Your task to perform on an android device: Open Google Maps Image 0: 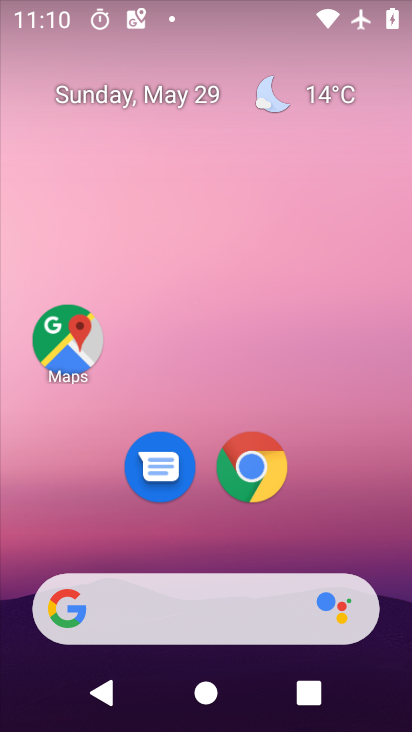
Step 0: click (66, 345)
Your task to perform on an android device: Open Google Maps Image 1: 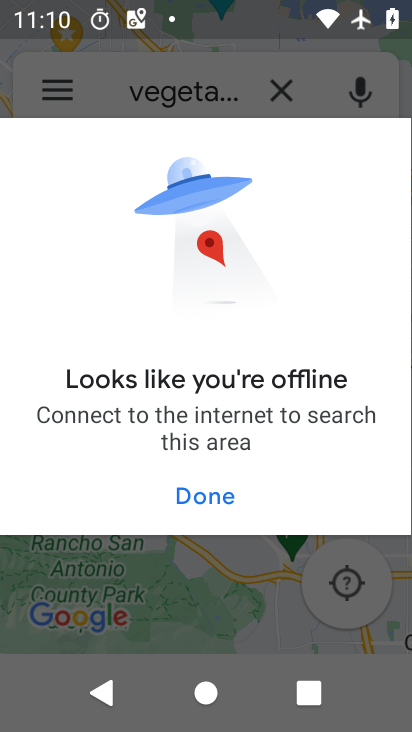
Step 1: click (192, 502)
Your task to perform on an android device: Open Google Maps Image 2: 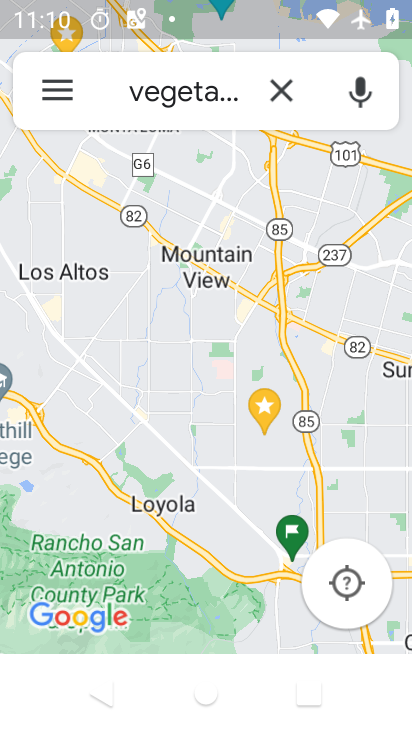
Step 2: task complete